Your task to perform on an android device: What's on my calendar today? Image 0: 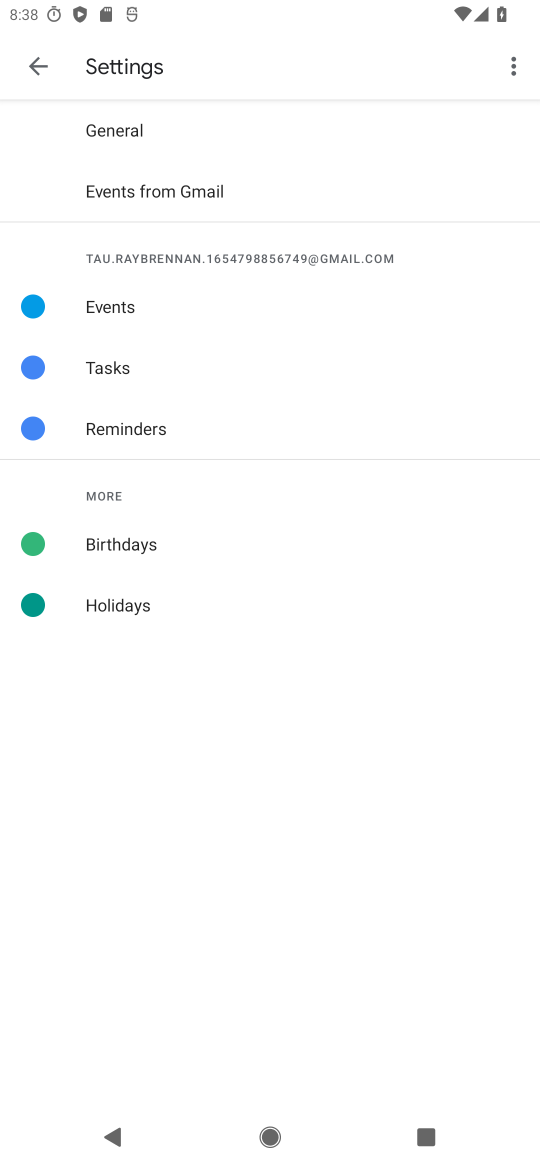
Step 0: press home button
Your task to perform on an android device: What's on my calendar today? Image 1: 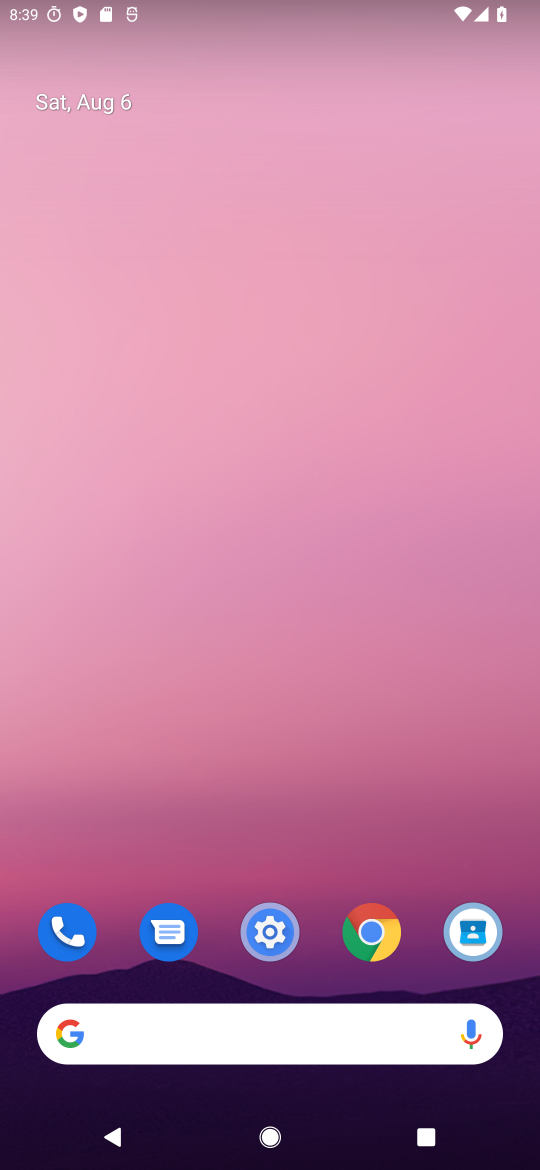
Step 1: drag from (261, 1029) to (513, 196)
Your task to perform on an android device: What's on my calendar today? Image 2: 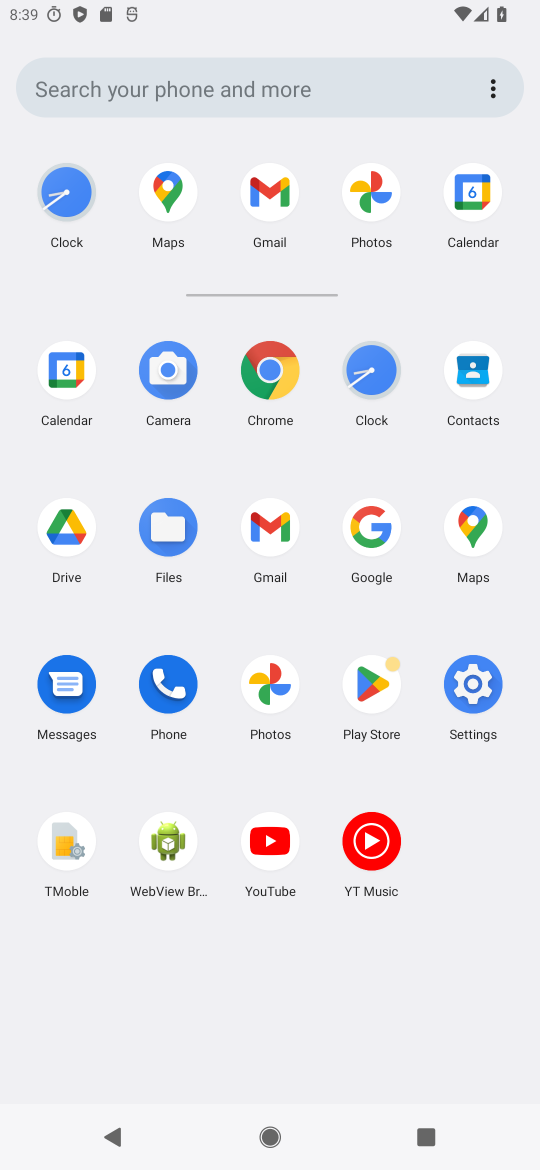
Step 2: click (484, 192)
Your task to perform on an android device: What's on my calendar today? Image 3: 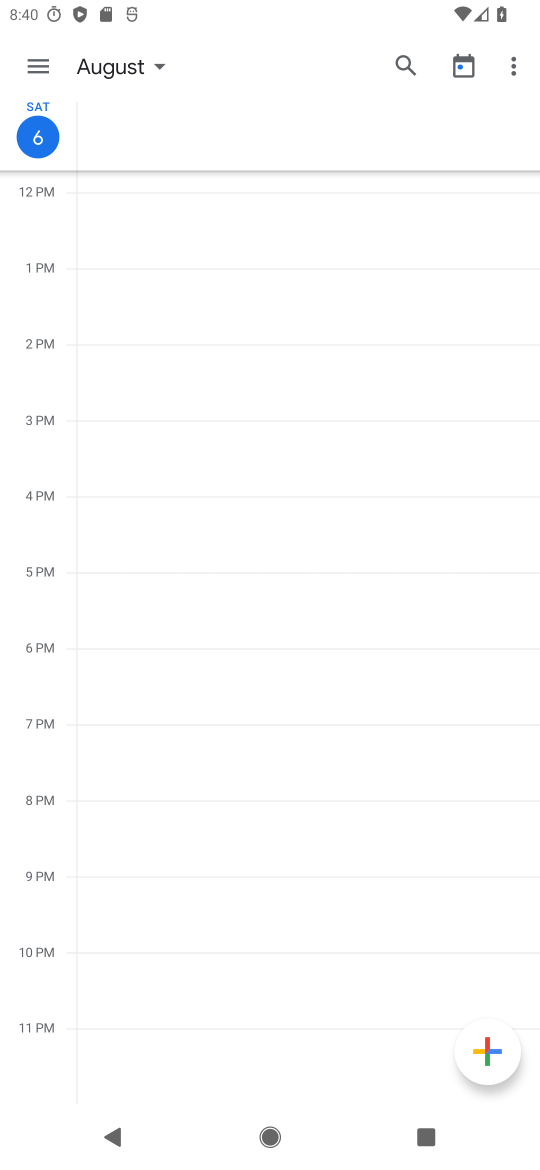
Step 3: task complete